Your task to perform on an android device: open wifi settings Image 0: 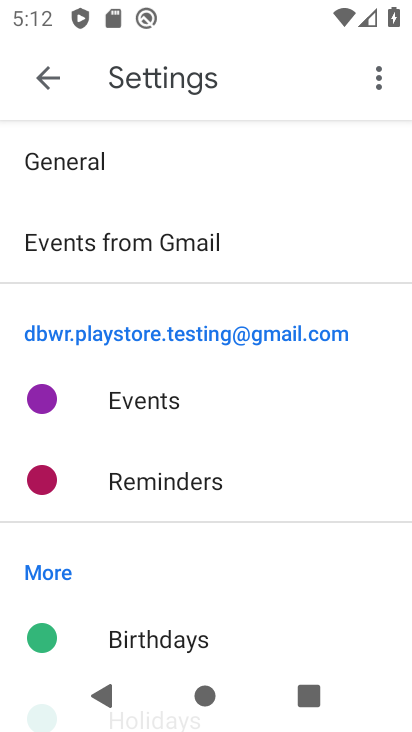
Step 0: press home button
Your task to perform on an android device: open wifi settings Image 1: 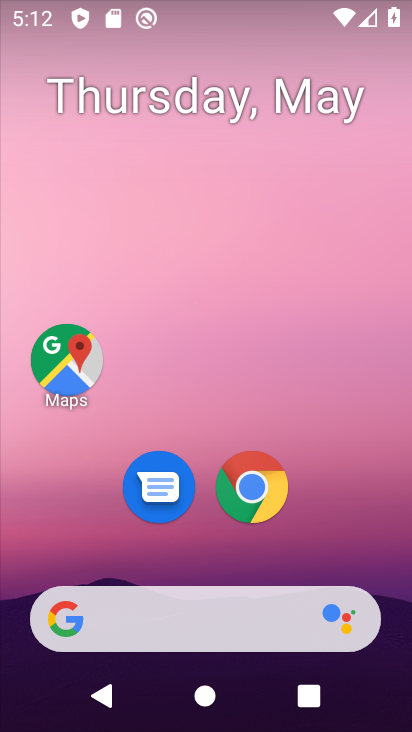
Step 1: drag from (315, 527) to (297, 65)
Your task to perform on an android device: open wifi settings Image 2: 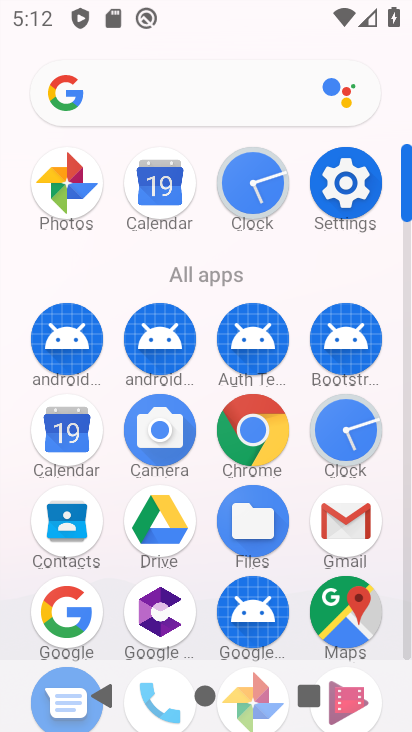
Step 2: click (344, 187)
Your task to perform on an android device: open wifi settings Image 3: 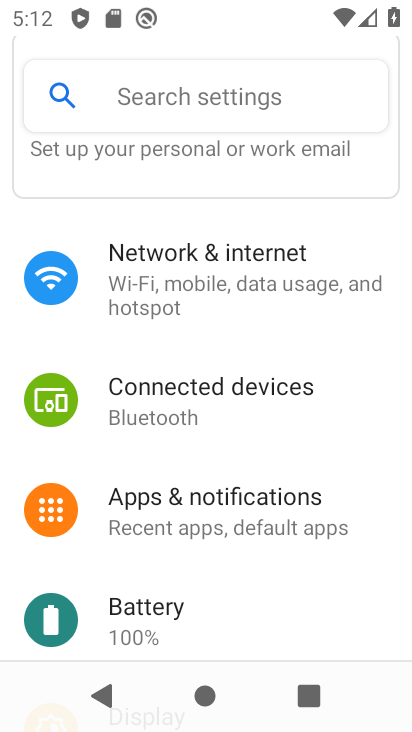
Step 3: click (235, 278)
Your task to perform on an android device: open wifi settings Image 4: 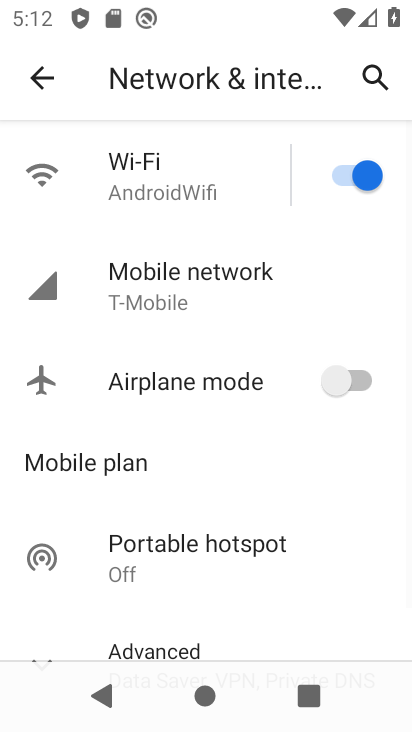
Step 4: click (180, 176)
Your task to perform on an android device: open wifi settings Image 5: 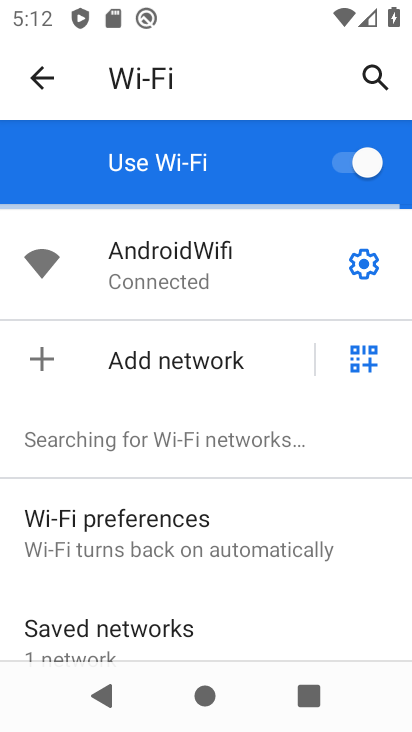
Step 5: task complete